Your task to perform on an android device: turn pop-ups off in chrome Image 0: 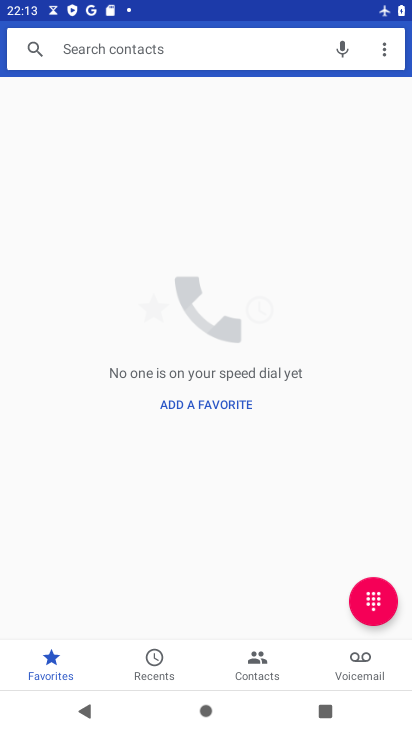
Step 0: press home button
Your task to perform on an android device: turn pop-ups off in chrome Image 1: 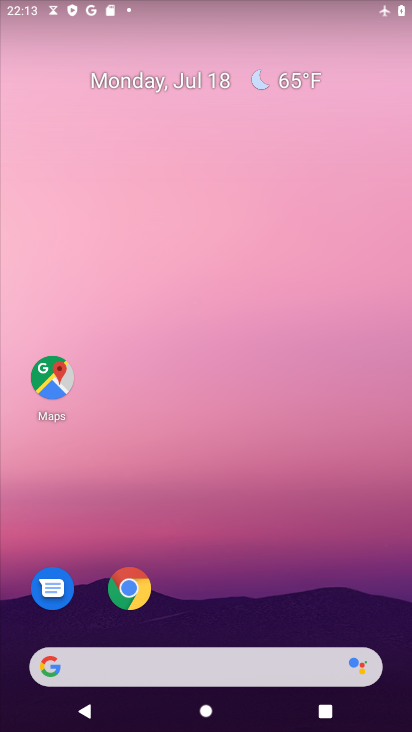
Step 1: click (129, 587)
Your task to perform on an android device: turn pop-ups off in chrome Image 2: 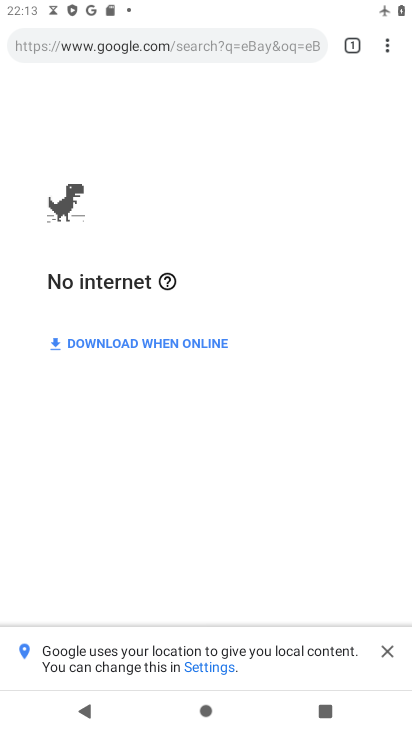
Step 2: click (388, 47)
Your task to perform on an android device: turn pop-ups off in chrome Image 3: 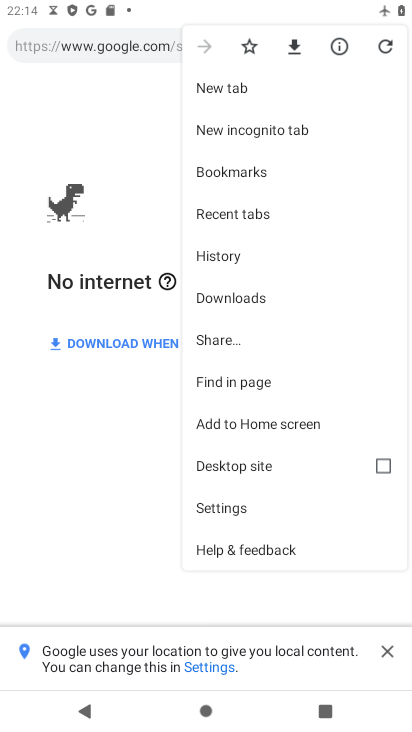
Step 3: click (231, 509)
Your task to perform on an android device: turn pop-ups off in chrome Image 4: 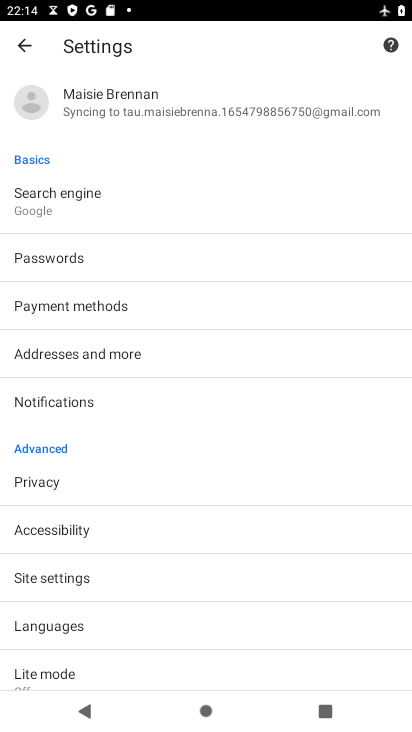
Step 4: click (56, 576)
Your task to perform on an android device: turn pop-ups off in chrome Image 5: 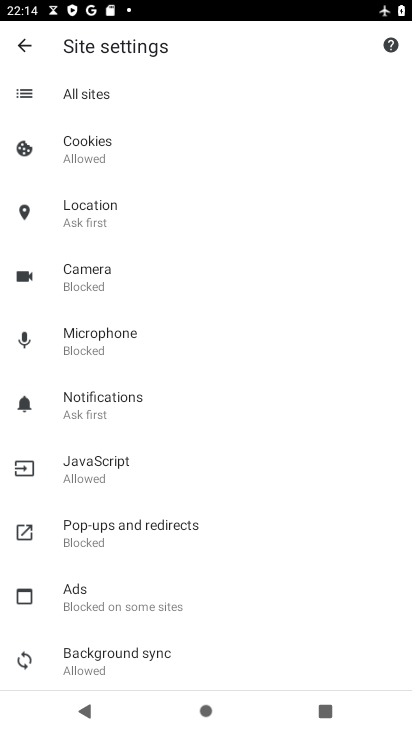
Step 5: click (120, 531)
Your task to perform on an android device: turn pop-ups off in chrome Image 6: 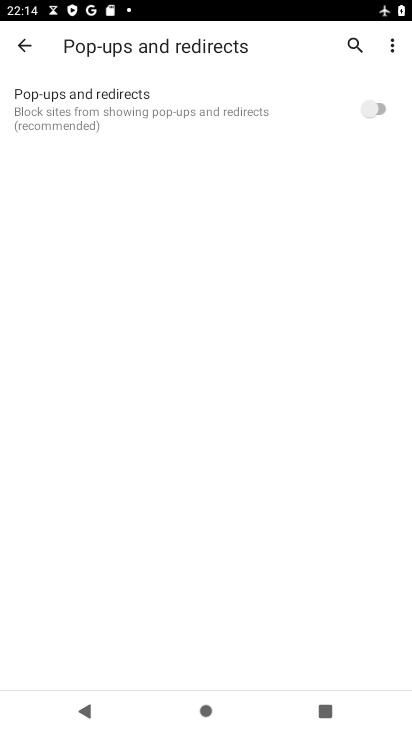
Step 6: task complete